Your task to perform on an android device: Open Google Maps Image 0: 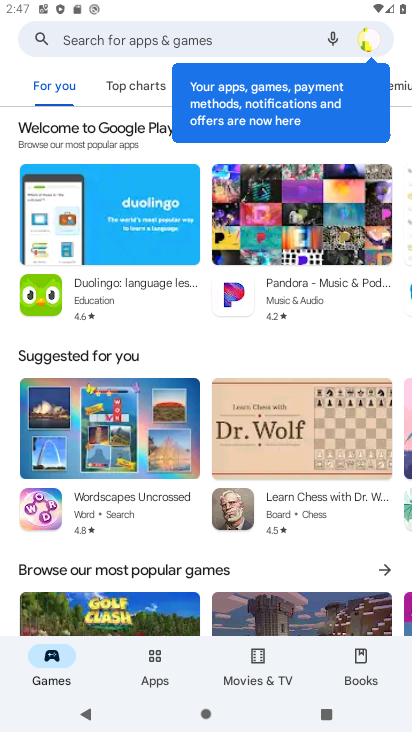
Step 0: press back button
Your task to perform on an android device: Open Google Maps Image 1: 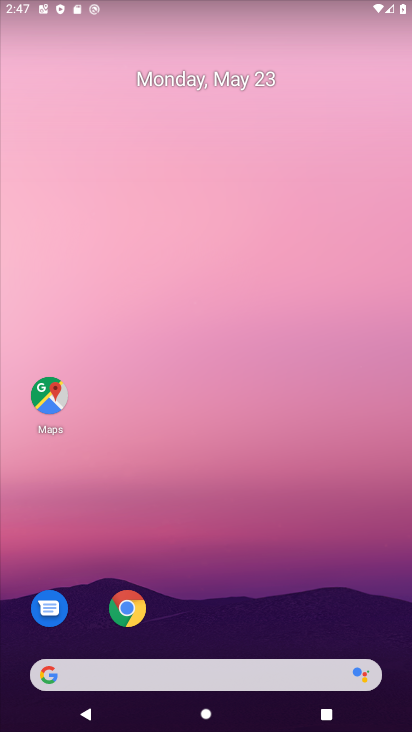
Step 1: click (50, 397)
Your task to perform on an android device: Open Google Maps Image 2: 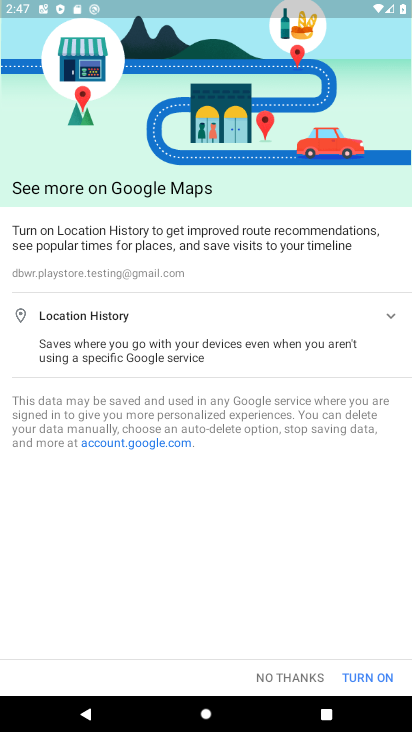
Step 2: click (279, 674)
Your task to perform on an android device: Open Google Maps Image 3: 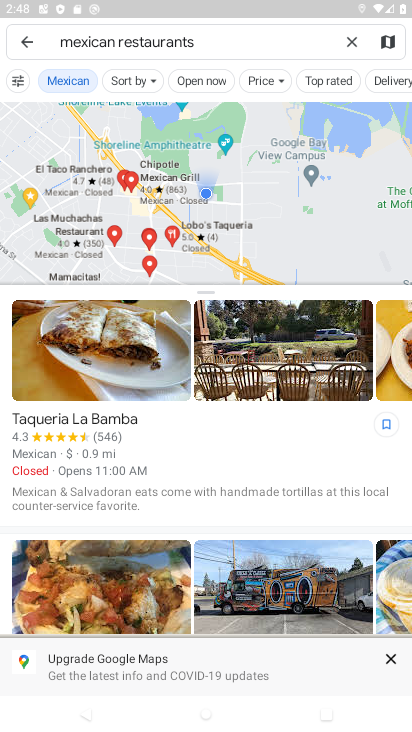
Step 3: task complete